Your task to perform on an android device: open sync settings in chrome Image 0: 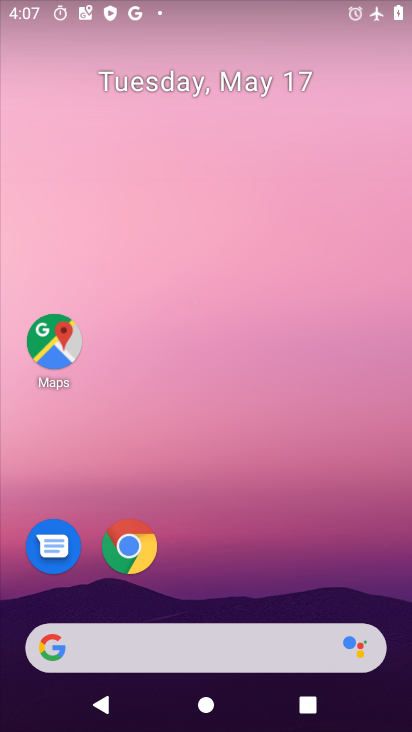
Step 0: click (139, 541)
Your task to perform on an android device: open sync settings in chrome Image 1: 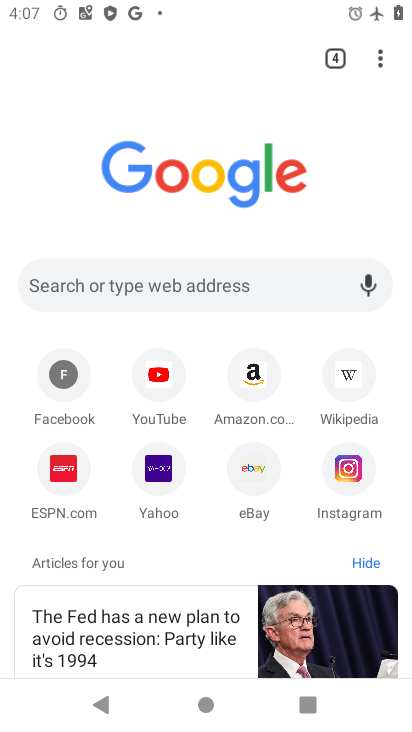
Step 1: click (378, 56)
Your task to perform on an android device: open sync settings in chrome Image 2: 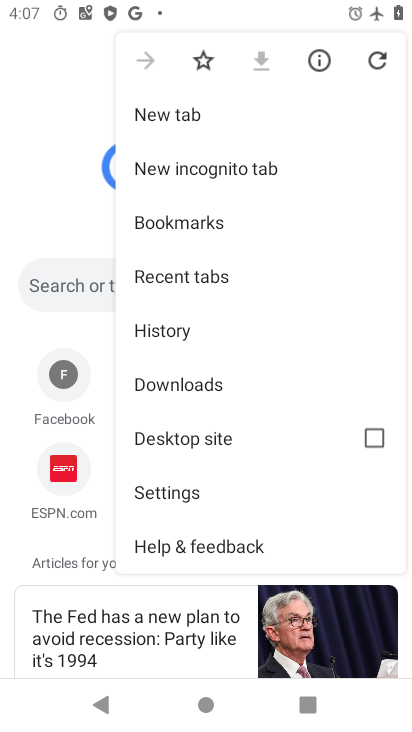
Step 2: click (186, 488)
Your task to perform on an android device: open sync settings in chrome Image 3: 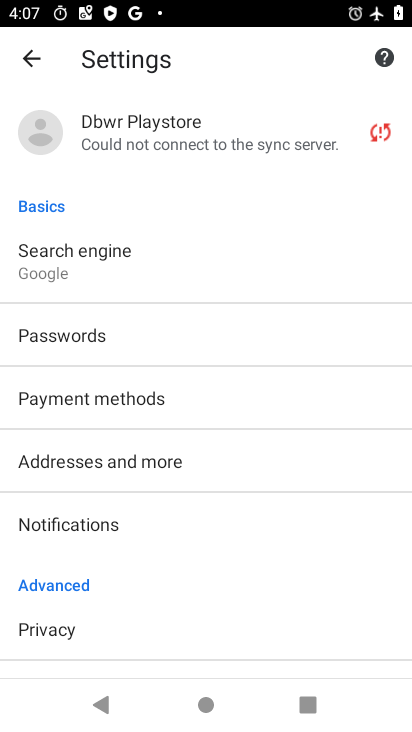
Step 3: drag from (212, 622) to (211, 346)
Your task to perform on an android device: open sync settings in chrome Image 4: 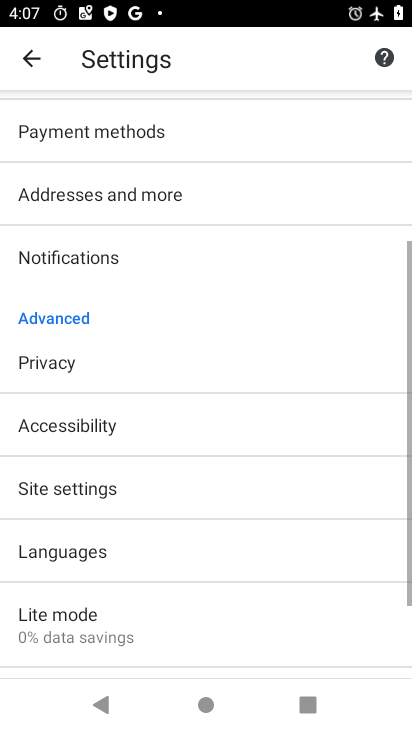
Step 4: click (45, 488)
Your task to perform on an android device: open sync settings in chrome Image 5: 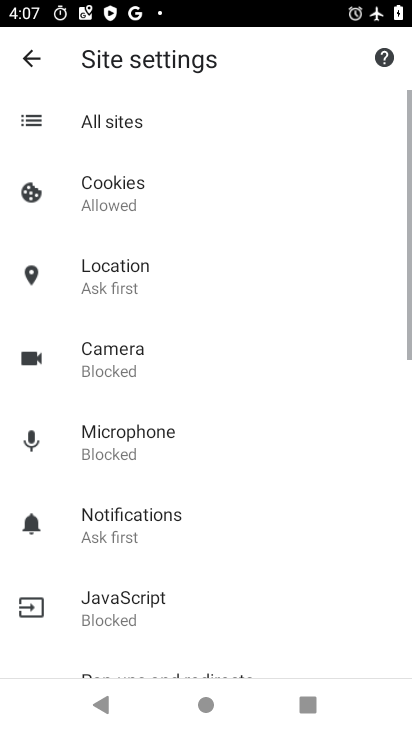
Step 5: drag from (239, 560) to (233, 401)
Your task to perform on an android device: open sync settings in chrome Image 6: 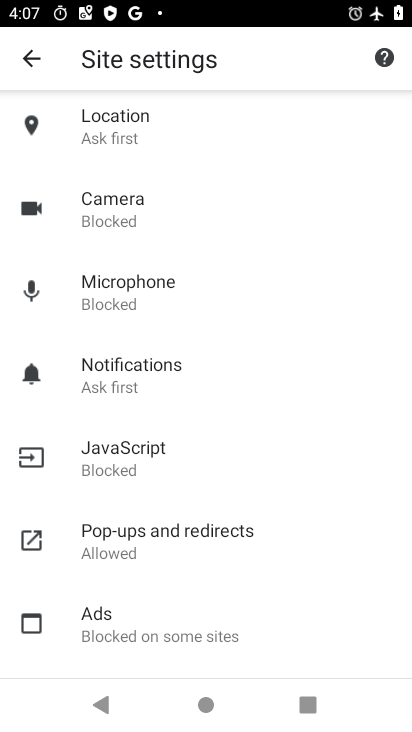
Step 6: drag from (280, 557) to (278, 361)
Your task to perform on an android device: open sync settings in chrome Image 7: 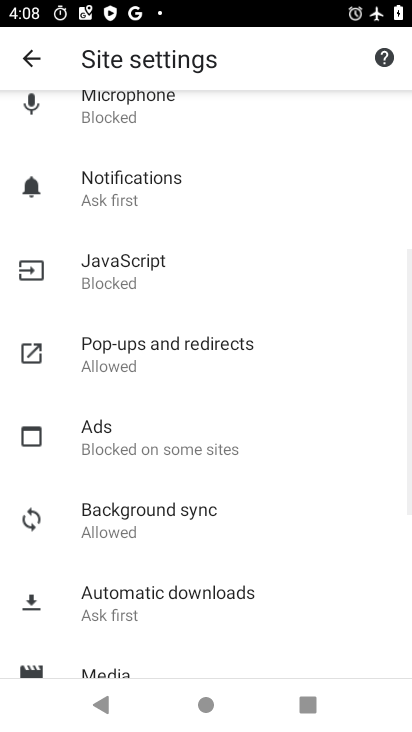
Step 7: click (117, 522)
Your task to perform on an android device: open sync settings in chrome Image 8: 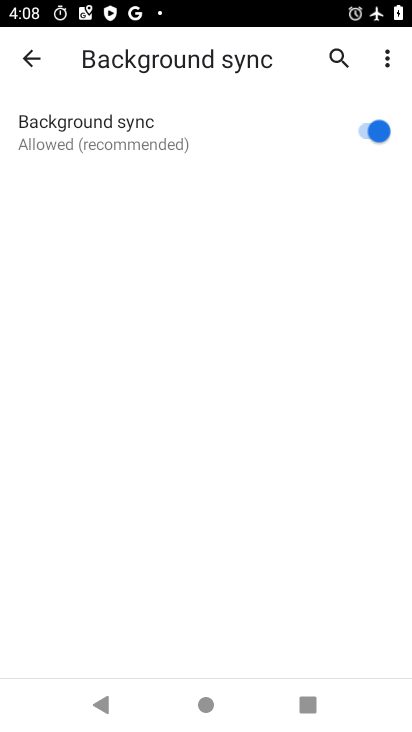
Step 8: task complete